Your task to perform on an android device: Show me the best rated 42 inch TV on Walmart. Image 0: 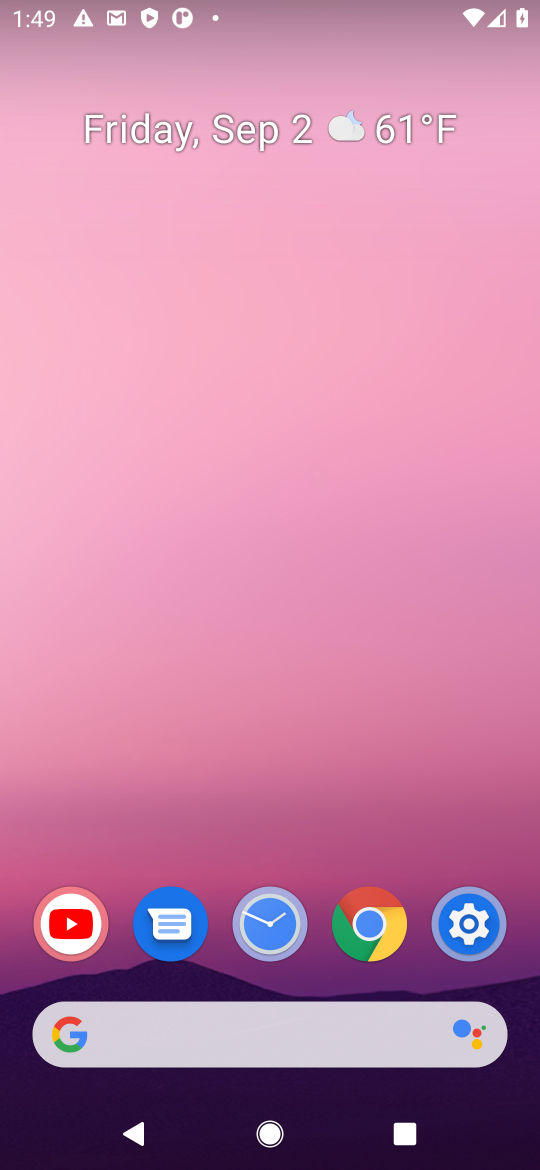
Step 0: click (377, 1039)
Your task to perform on an android device: Show me the best rated 42 inch TV on Walmart. Image 1: 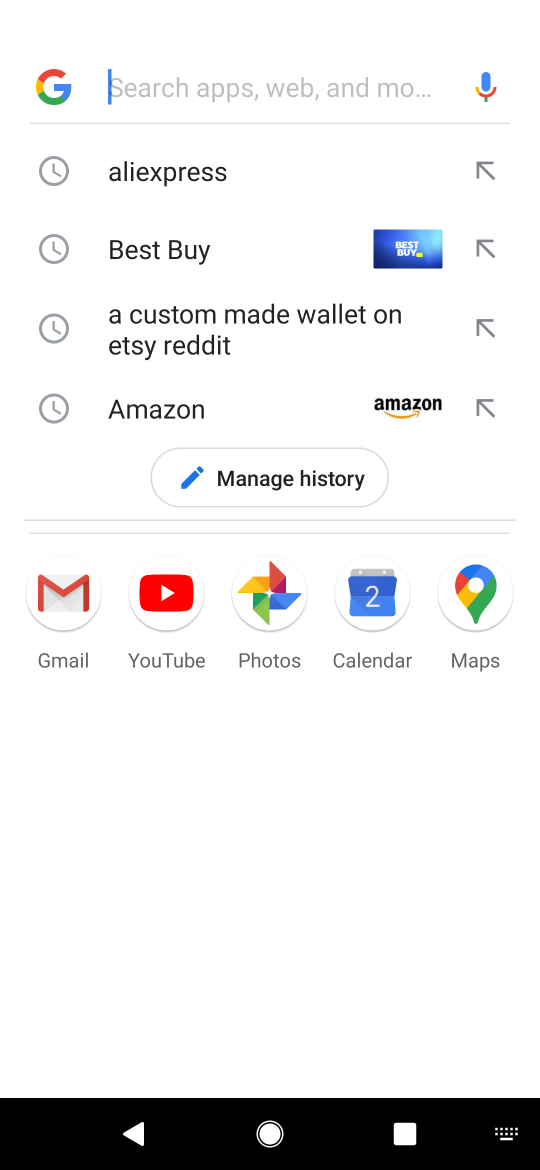
Step 1: press enter
Your task to perform on an android device: Show me the best rated 42 inch TV on Walmart. Image 2: 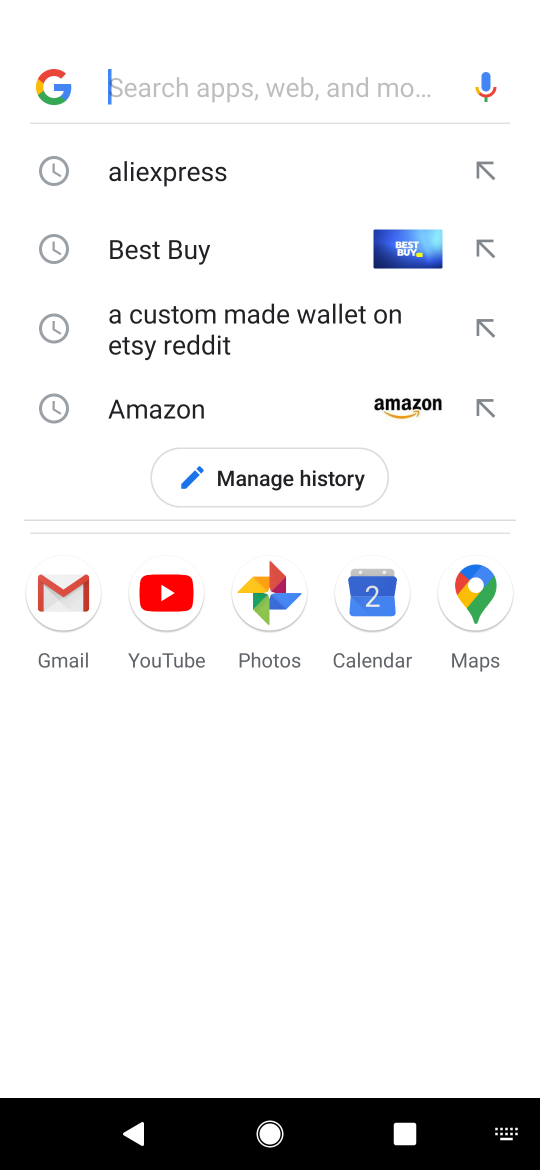
Step 2: type "walmart"
Your task to perform on an android device: Show me the best rated 42 inch TV on Walmart. Image 3: 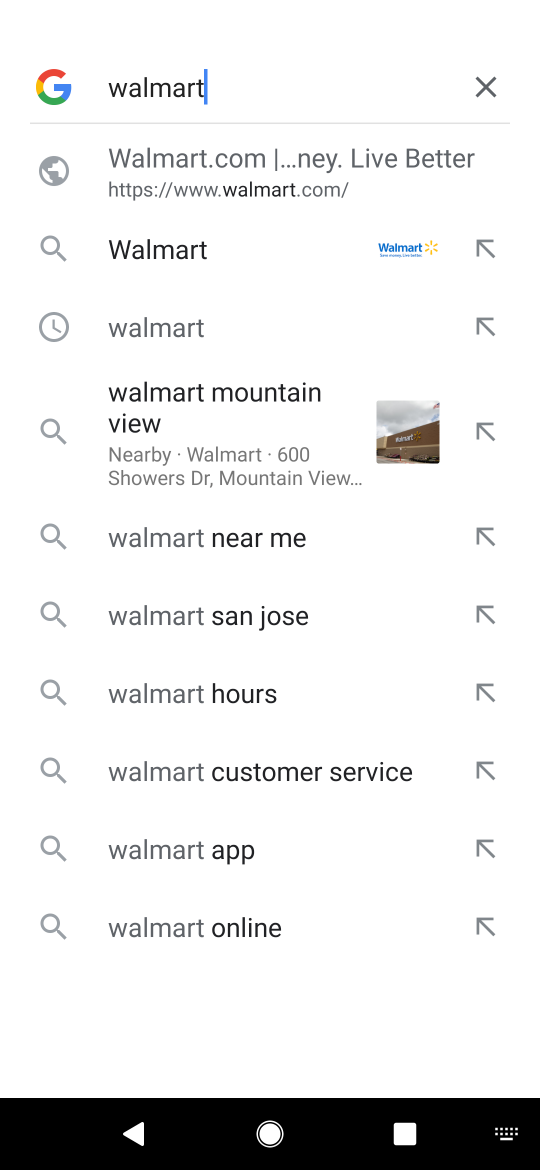
Step 3: click (190, 248)
Your task to perform on an android device: Show me the best rated 42 inch TV on Walmart. Image 4: 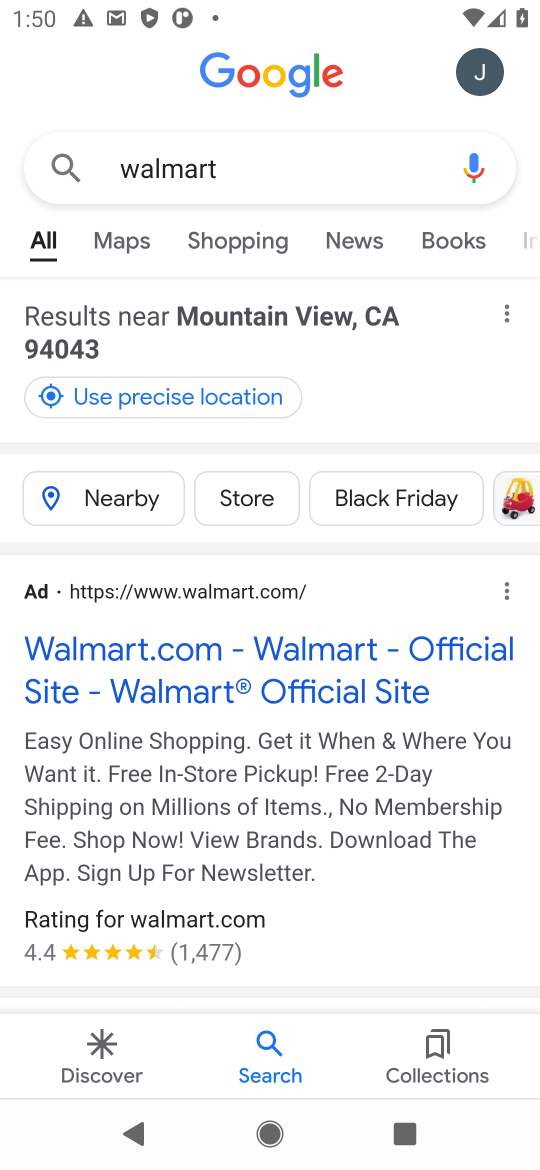
Step 4: click (299, 673)
Your task to perform on an android device: Show me the best rated 42 inch TV on Walmart. Image 5: 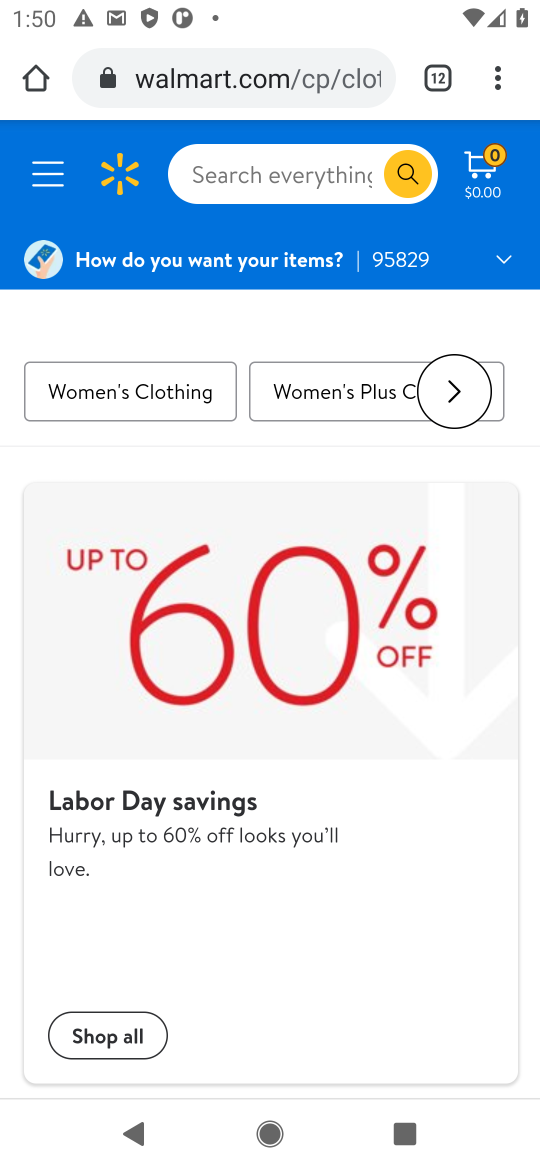
Step 5: click (279, 174)
Your task to perform on an android device: Show me the best rated 42 inch TV on Walmart. Image 6: 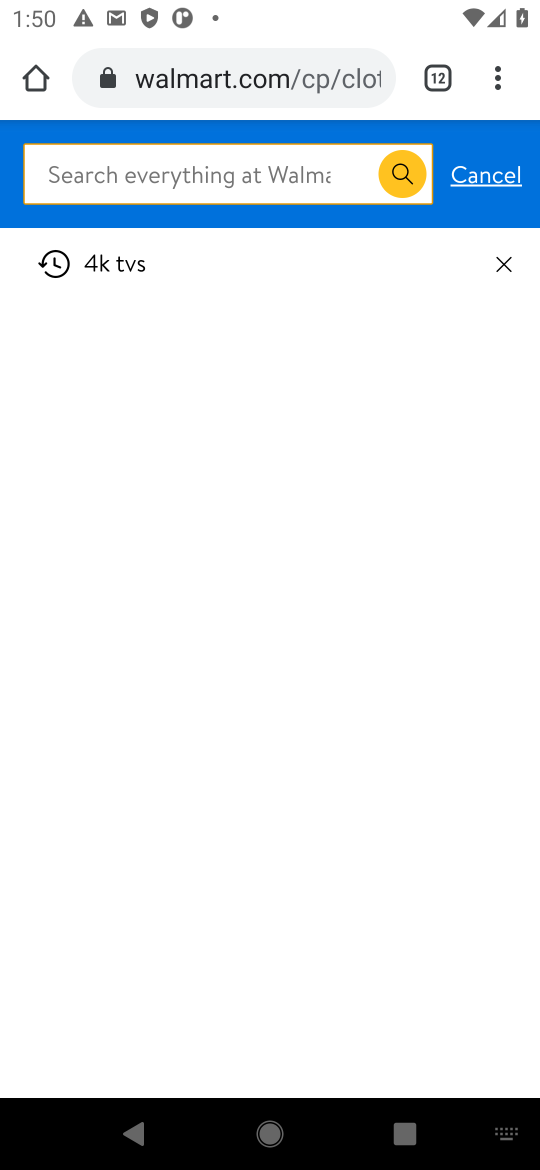
Step 6: type "42 inch tv"
Your task to perform on an android device: Show me the best rated 42 inch TV on Walmart. Image 7: 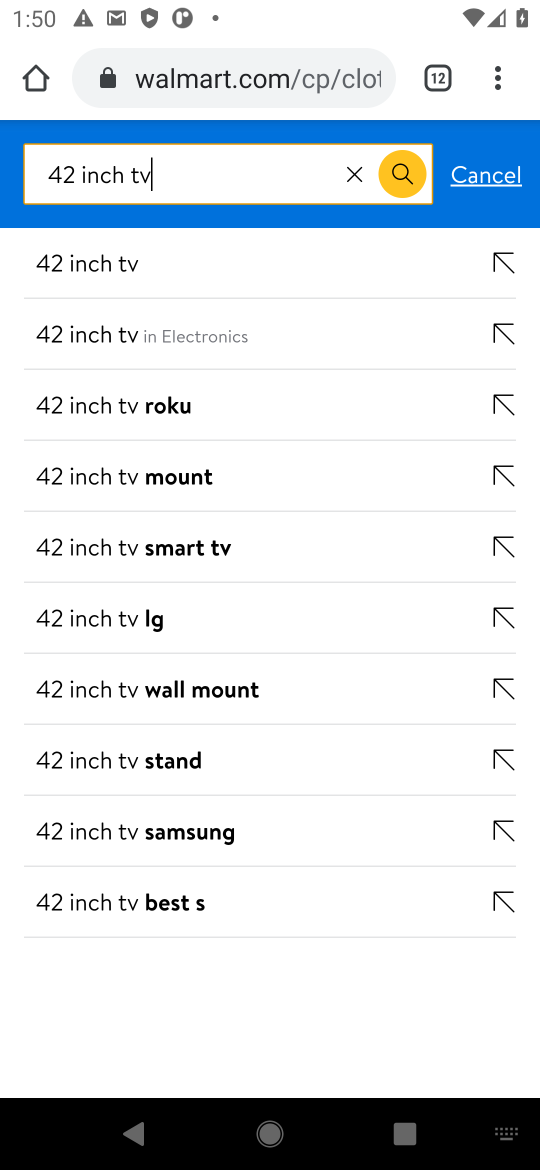
Step 7: click (184, 268)
Your task to perform on an android device: Show me the best rated 42 inch TV on Walmart. Image 8: 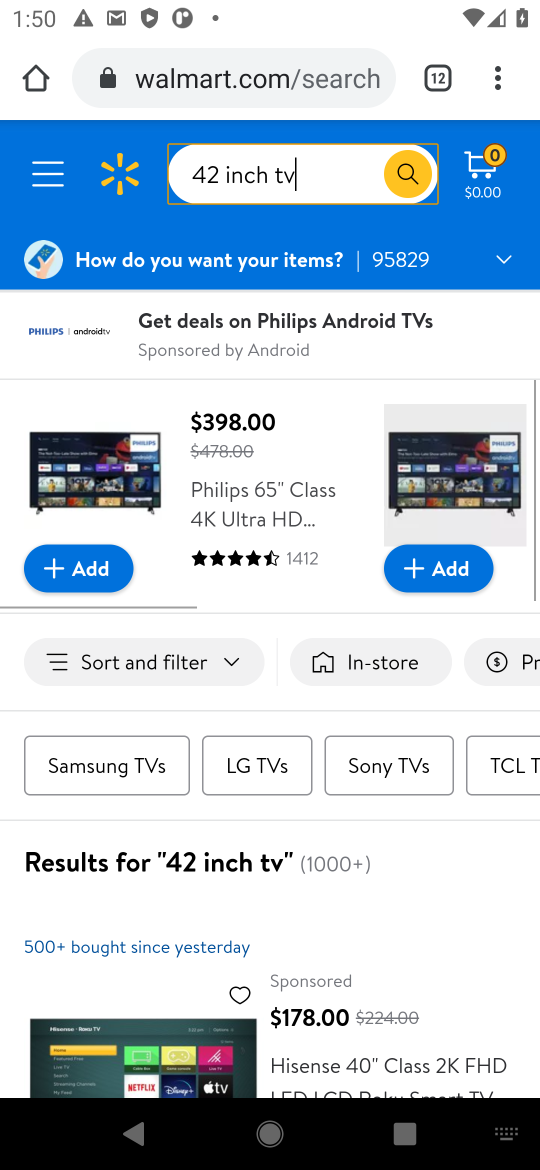
Step 8: task complete